Your task to perform on an android device: turn on showing notifications on the lock screen Image 0: 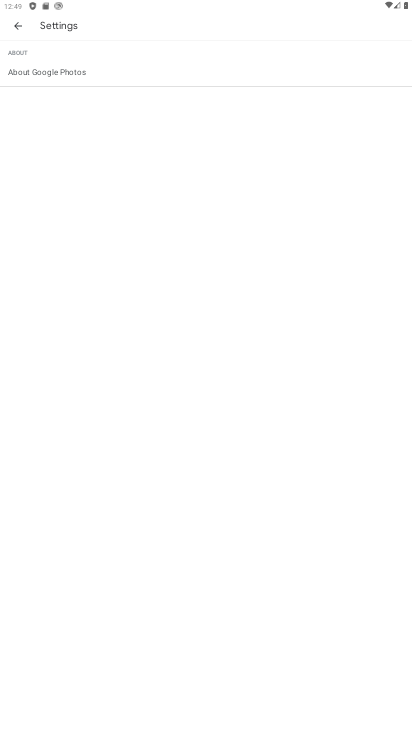
Step 0: press home button
Your task to perform on an android device: turn on showing notifications on the lock screen Image 1: 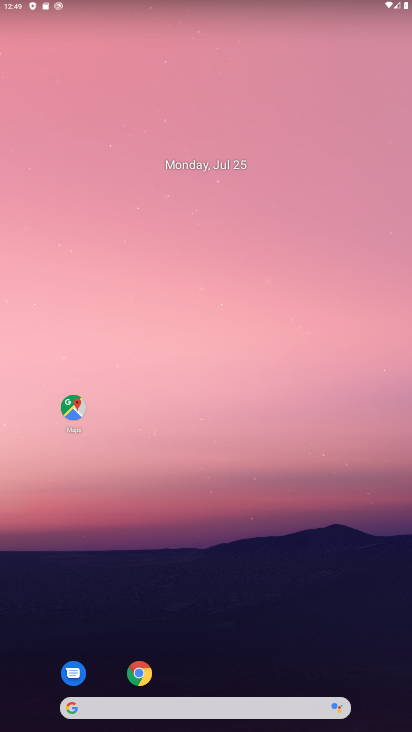
Step 1: drag from (371, 654) to (315, 144)
Your task to perform on an android device: turn on showing notifications on the lock screen Image 2: 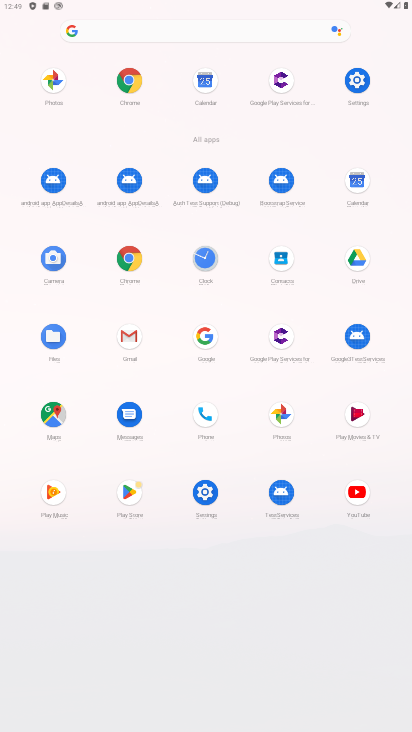
Step 2: click (205, 494)
Your task to perform on an android device: turn on showing notifications on the lock screen Image 3: 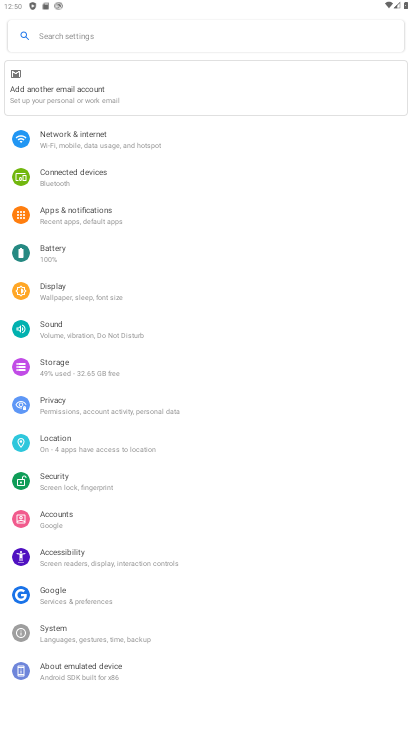
Step 3: click (63, 206)
Your task to perform on an android device: turn on showing notifications on the lock screen Image 4: 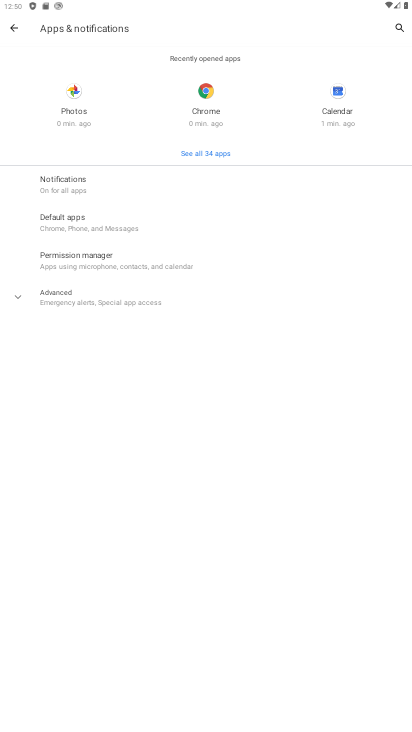
Step 4: click (57, 178)
Your task to perform on an android device: turn on showing notifications on the lock screen Image 5: 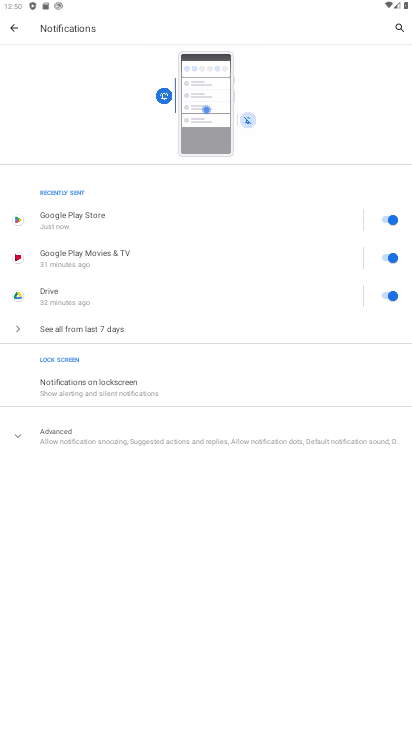
Step 5: click (9, 432)
Your task to perform on an android device: turn on showing notifications on the lock screen Image 6: 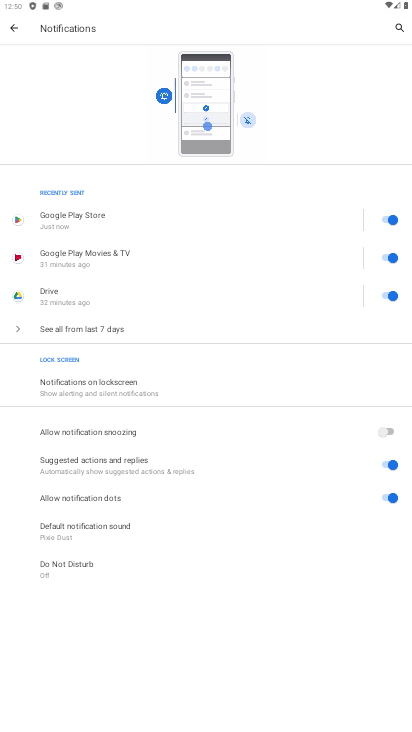
Step 6: click (76, 383)
Your task to perform on an android device: turn on showing notifications on the lock screen Image 7: 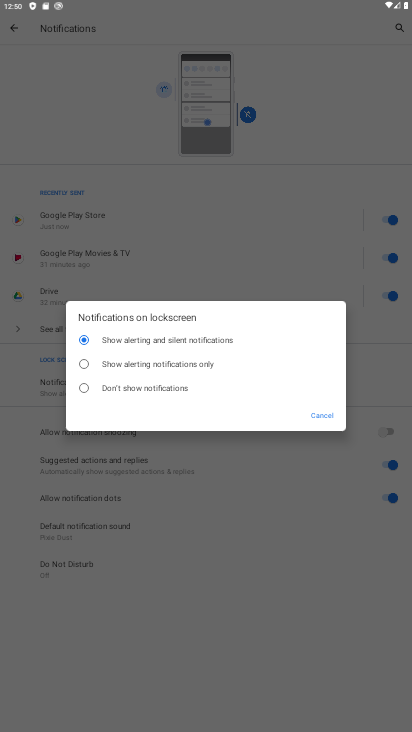
Step 7: task complete